Your task to perform on an android device: set the stopwatch Image 0: 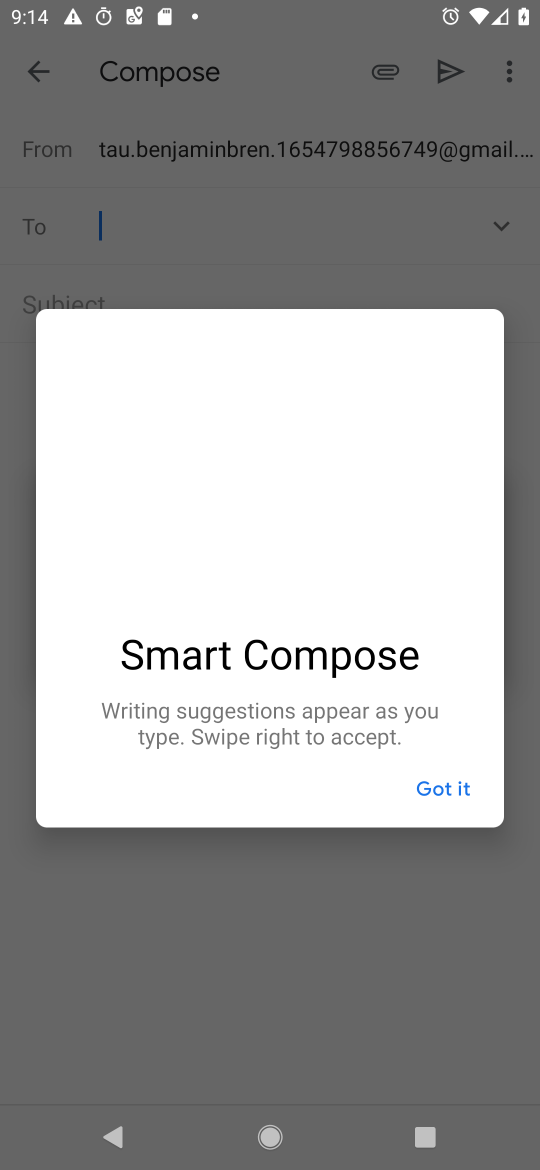
Step 0: drag from (301, 886) to (298, 502)
Your task to perform on an android device: set the stopwatch Image 1: 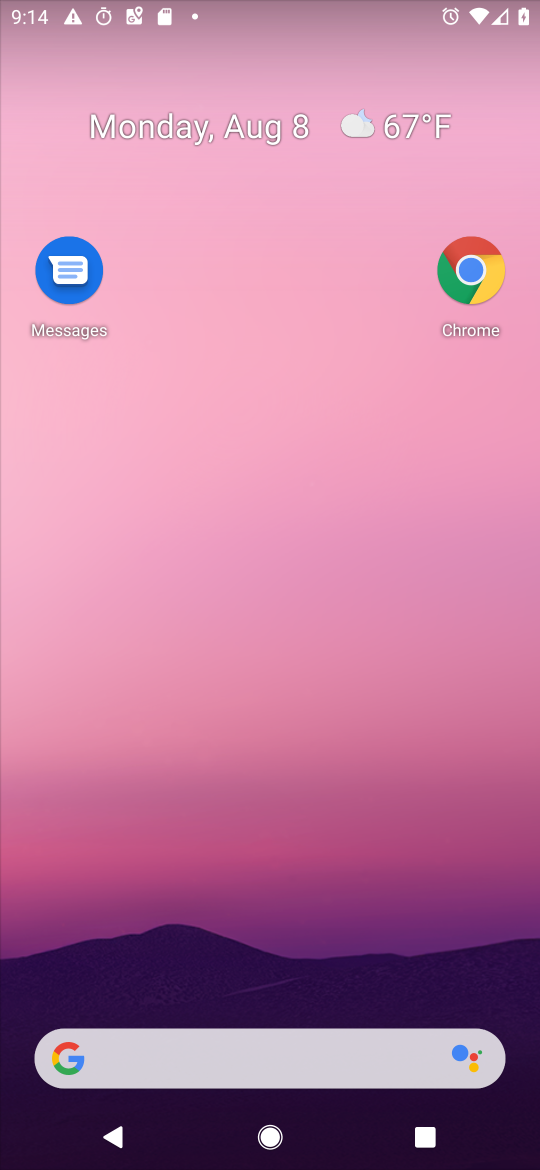
Step 1: drag from (252, 945) to (282, 278)
Your task to perform on an android device: set the stopwatch Image 2: 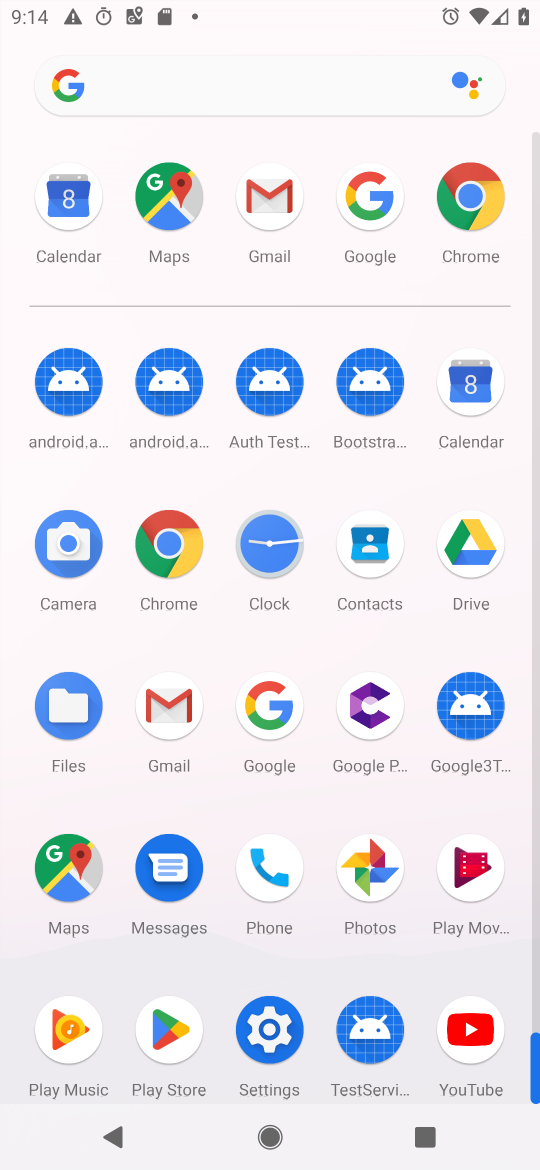
Step 2: click (264, 548)
Your task to perform on an android device: set the stopwatch Image 3: 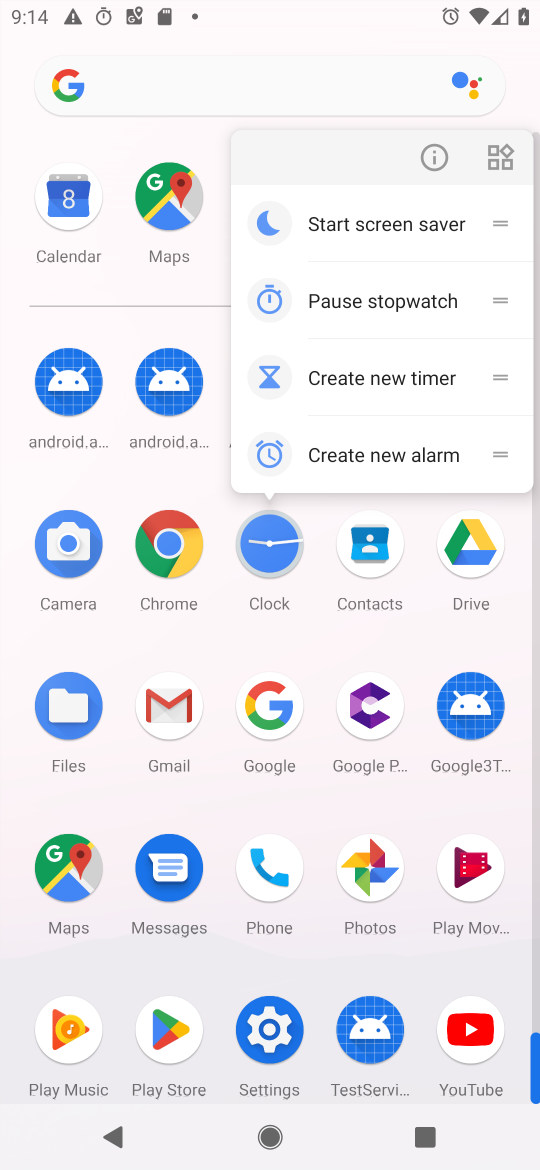
Step 3: click (416, 143)
Your task to perform on an android device: set the stopwatch Image 4: 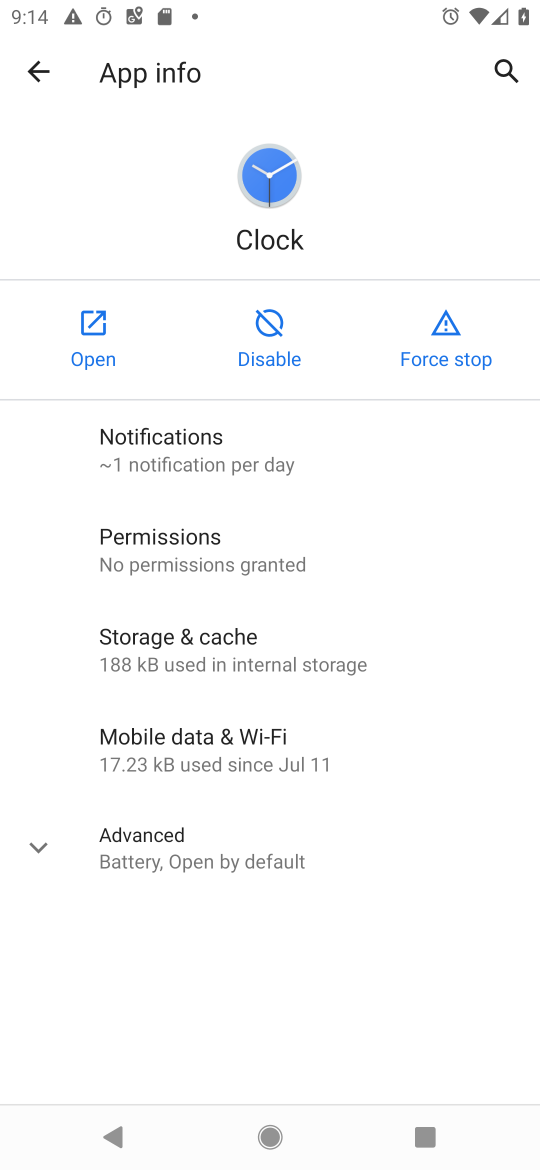
Step 4: click (95, 336)
Your task to perform on an android device: set the stopwatch Image 5: 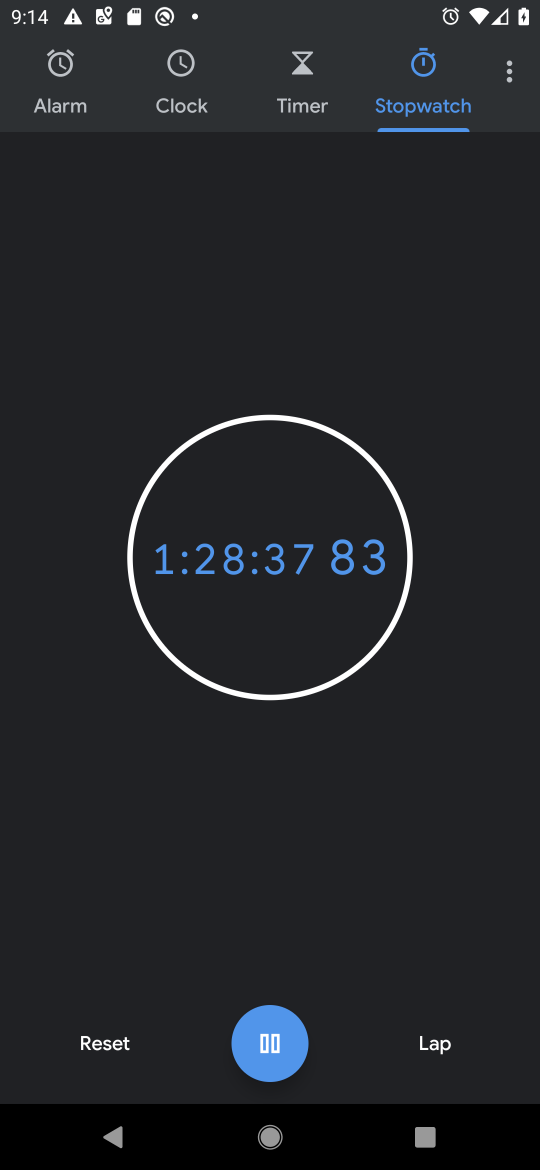
Step 5: task complete